Your task to perform on an android device: check android version Image 0: 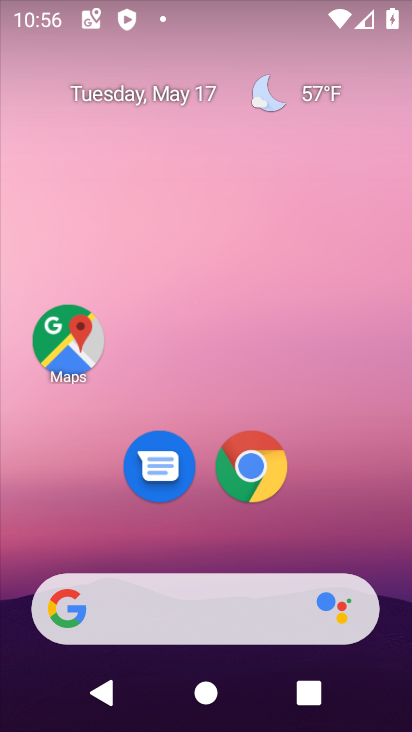
Step 0: drag from (223, 555) to (199, 21)
Your task to perform on an android device: check android version Image 1: 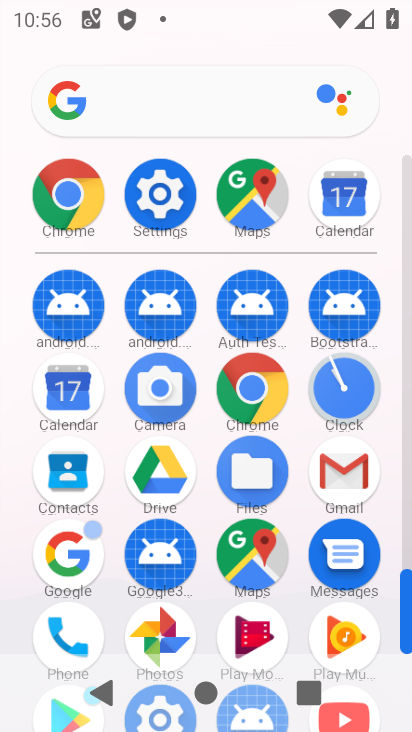
Step 1: click (159, 180)
Your task to perform on an android device: check android version Image 2: 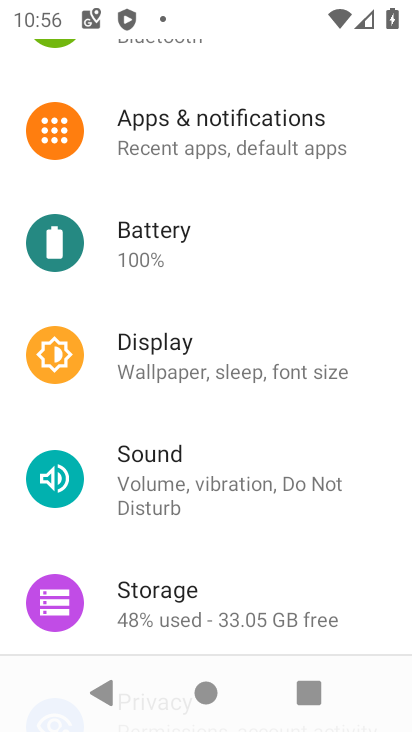
Step 2: drag from (181, 594) to (200, 8)
Your task to perform on an android device: check android version Image 3: 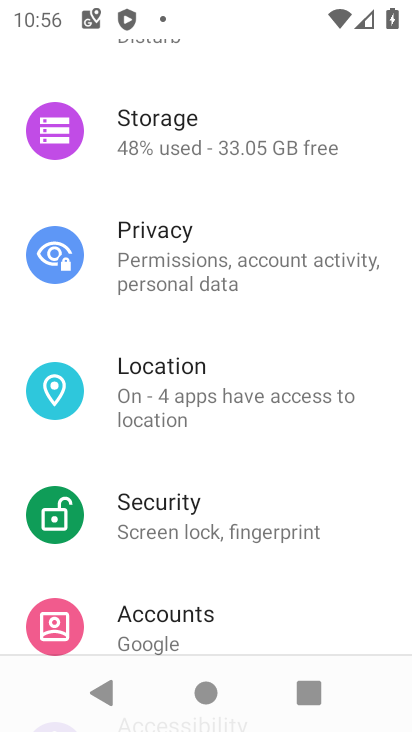
Step 3: drag from (235, 560) to (251, 63)
Your task to perform on an android device: check android version Image 4: 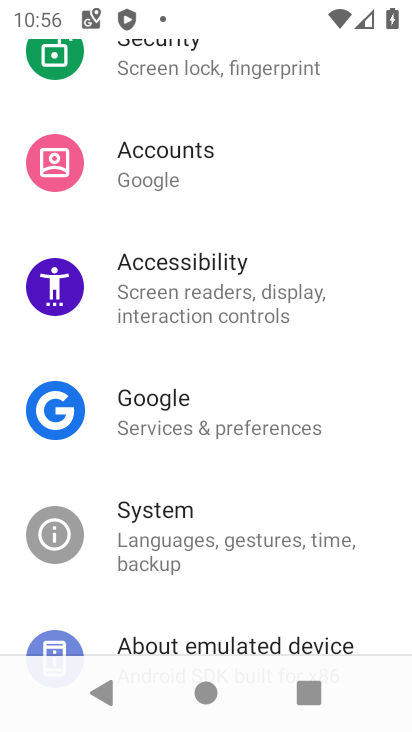
Step 4: drag from (279, 589) to (268, 207)
Your task to perform on an android device: check android version Image 5: 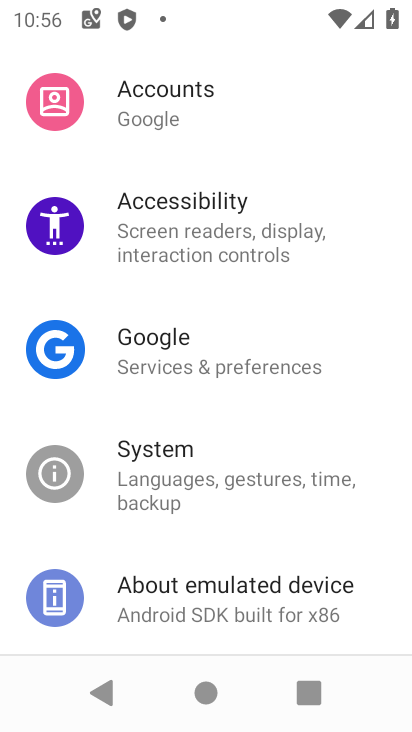
Step 5: click (221, 593)
Your task to perform on an android device: check android version Image 6: 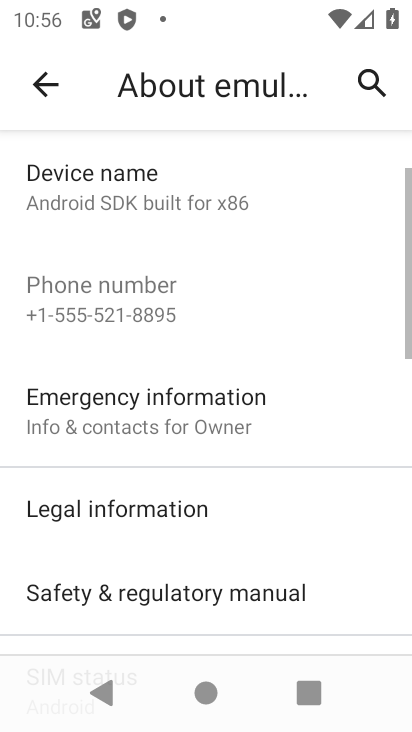
Step 6: drag from (245, 547) to (231, 98)
Your task to perform on an android device: check android version Image 7: 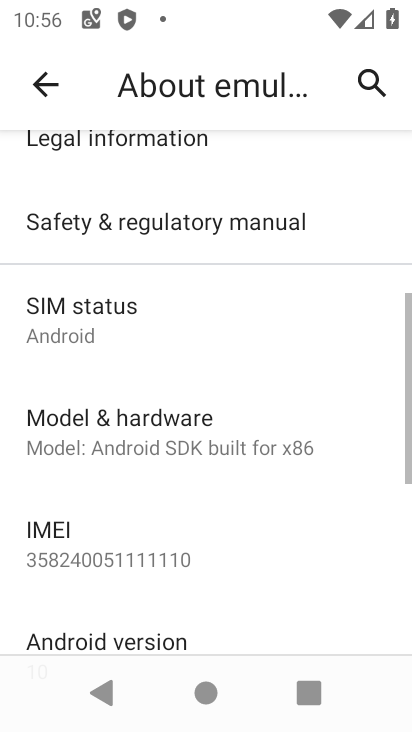
Step 7: click (129, 612)
Your task to perform on an android device: check android version Image 8: 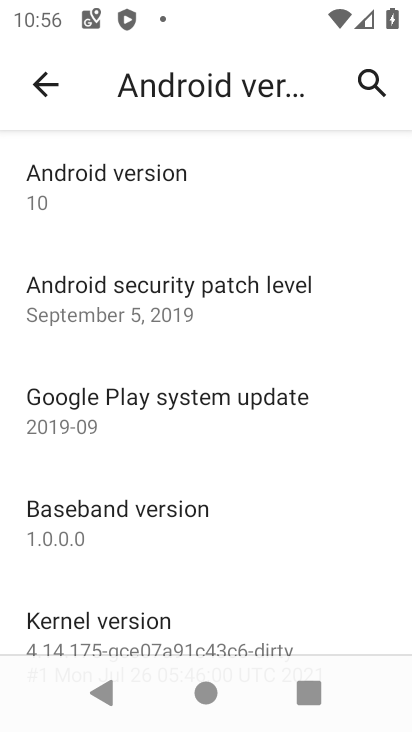
Step 8: task complete